Your task to perform on an android device: open a new tab in the chrome app Image 0: 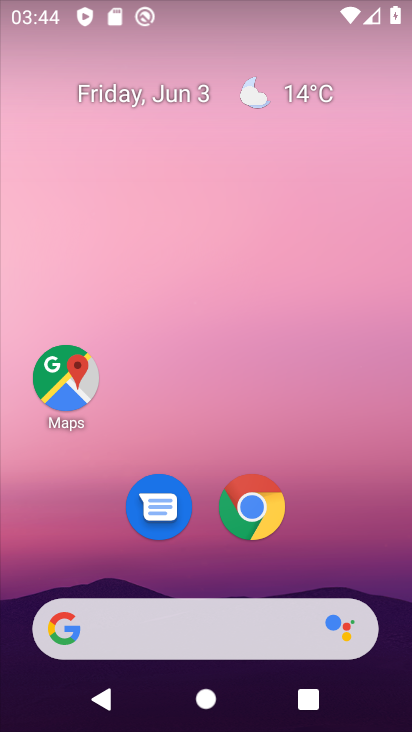
Step 0: press home button
Your task to perform on an android device: open a new tab in the chrome app Image 1: 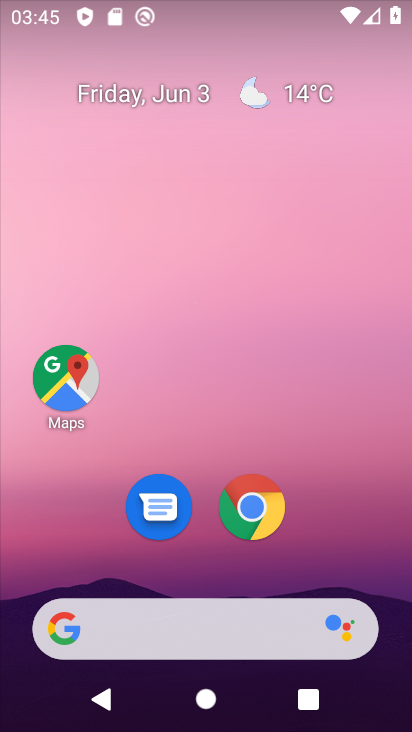
Step 1: click (260, 504)
Your task to perform on an android device: open a new tab in the chrome app Image 2: 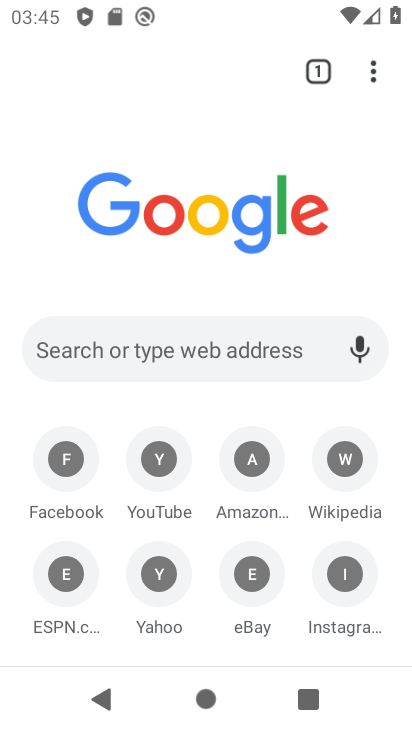
Step 2: click (320, 73)
Your task to perform on an android device: open a new tab in the chrome app Image 3: 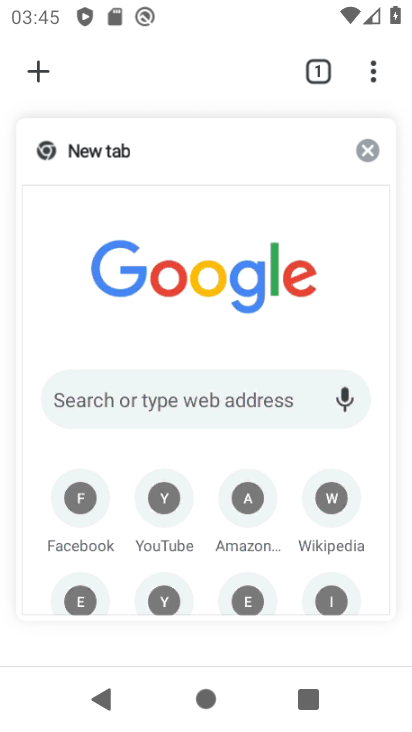
Step 3: click (35, 67)
Your task to perform on an android device: open a new tab in the chrome app Image 4: 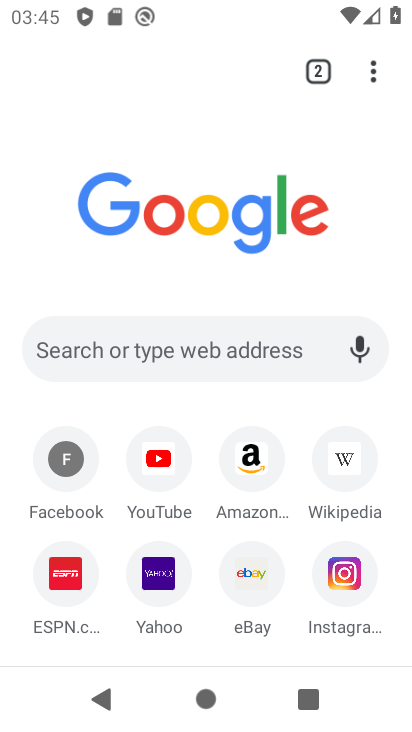
Step 4: task complete